Your task to perform on an android device: What's the news in Brazil? Image 0: 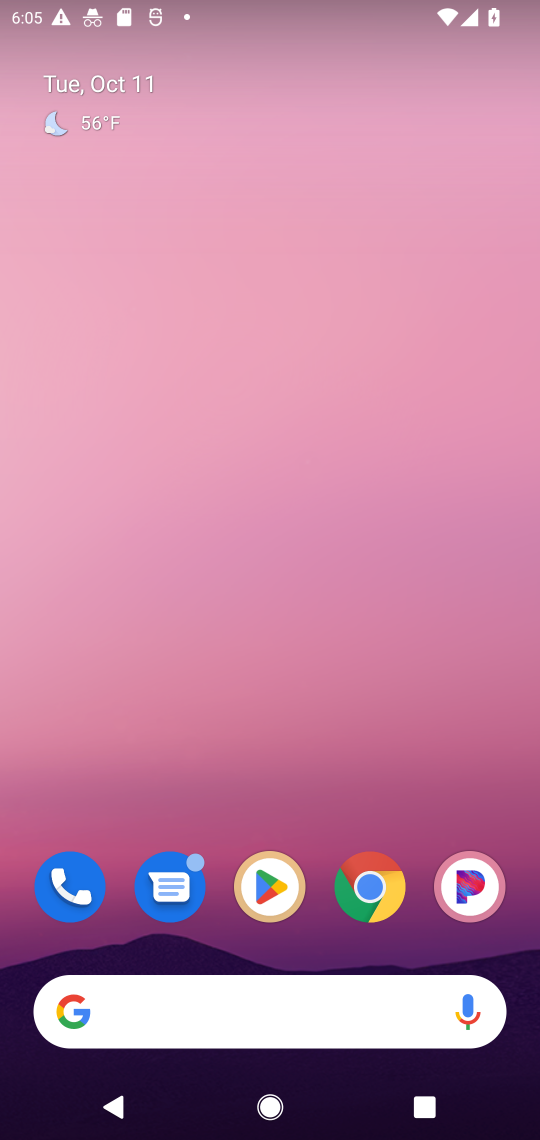
Step 0: click (231, 1015)
Your task to perform on an android device: What's the news in Brazil? Image 1: 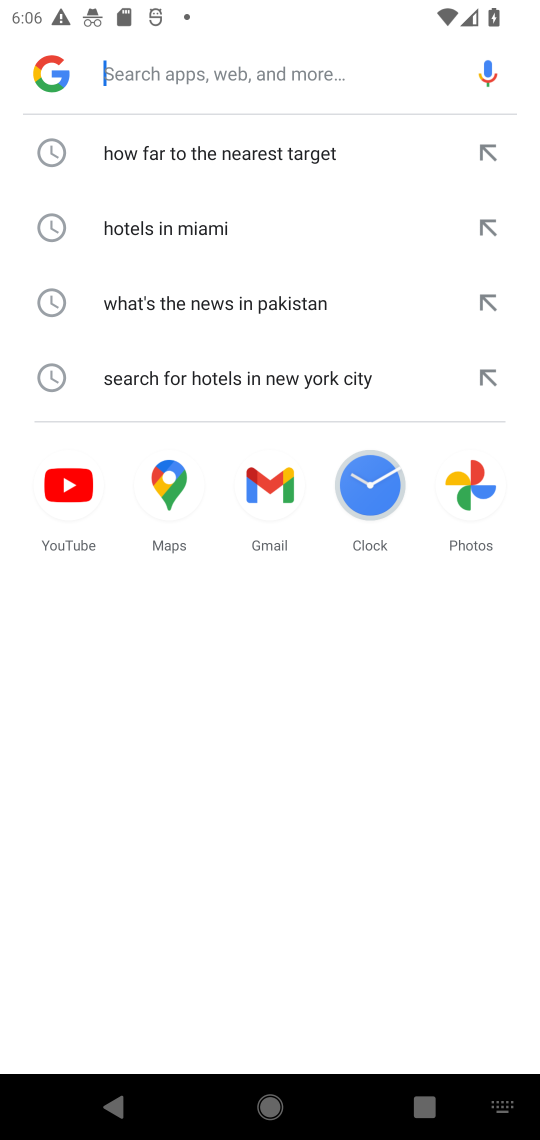
Step 1: type "What's the news in Brazil?"
Your task to perform on an android device: What's the news in Brazil? Image 2: 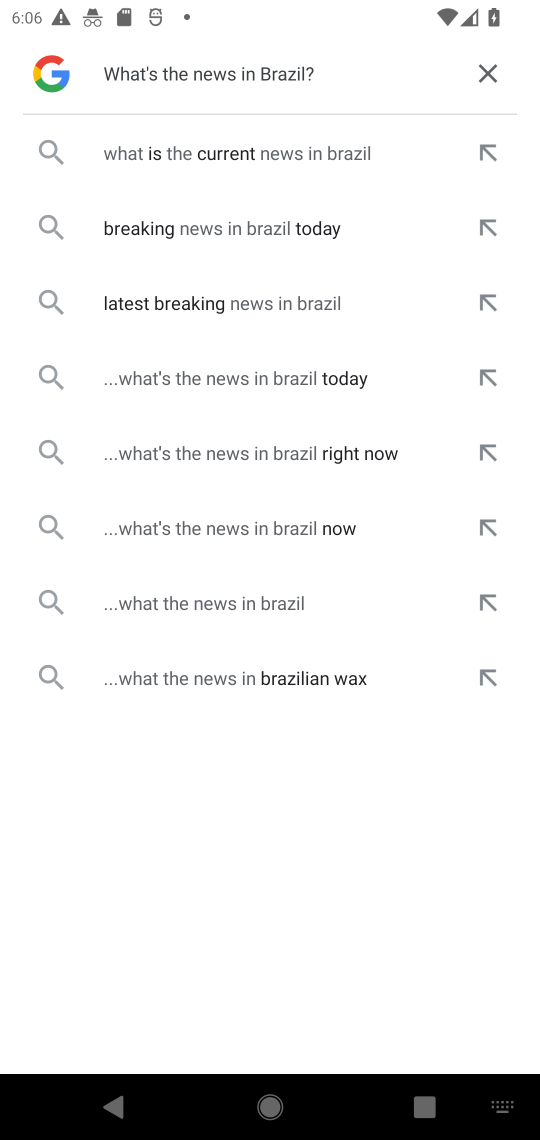
Step 2: click (252, 154)
Your task to perform on an android device: What's the news in Brazil? Image 3: 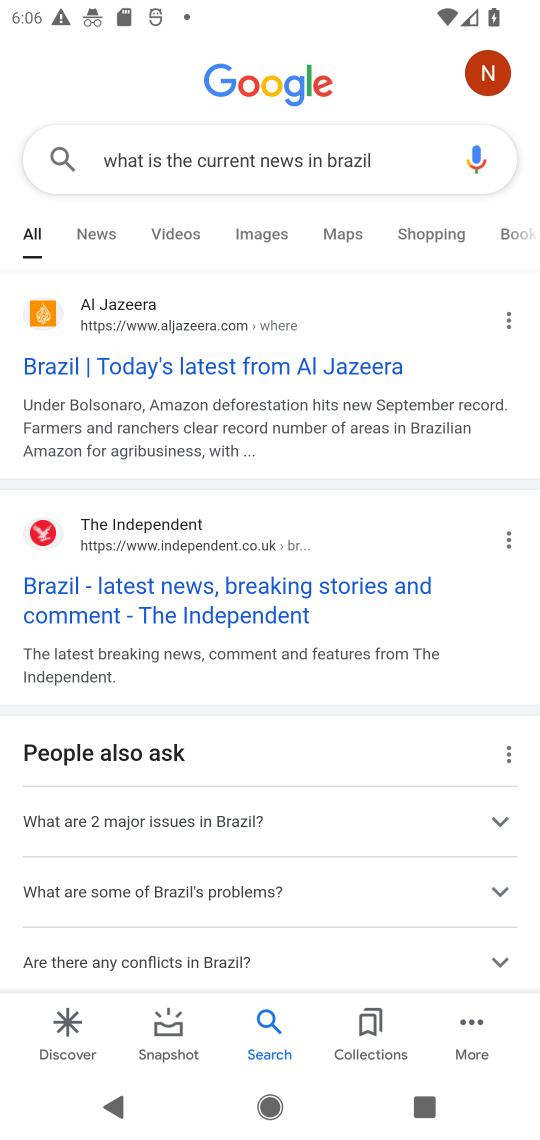
Step 3: click (103, 232)
Your task to perform on an android device: What's the news in Brazil? Image 4: 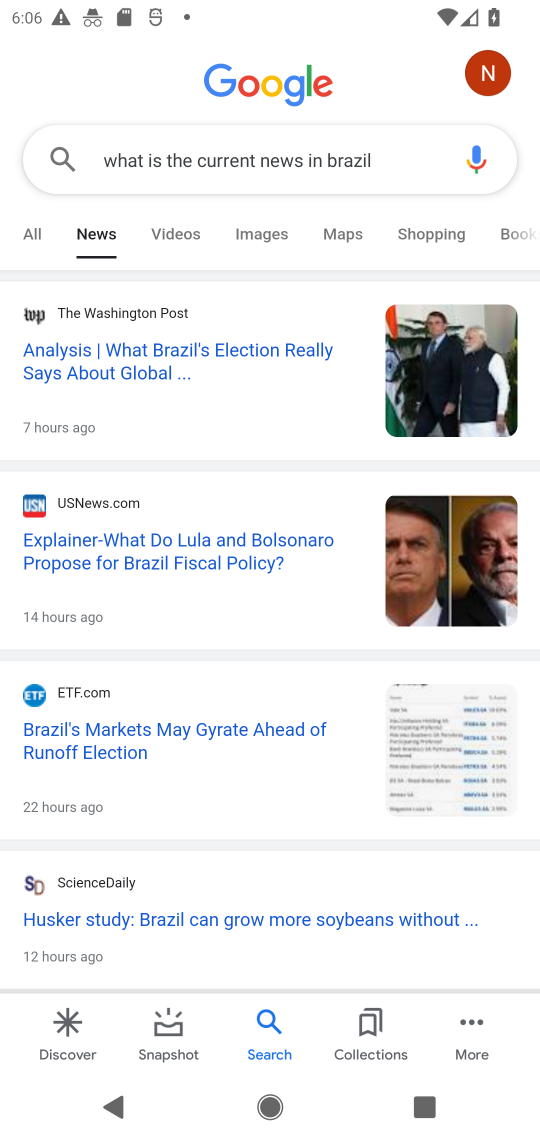
Step 4: click (284, 186)
Your task to perform on an android device: What's the news in Brazil? Image 5: 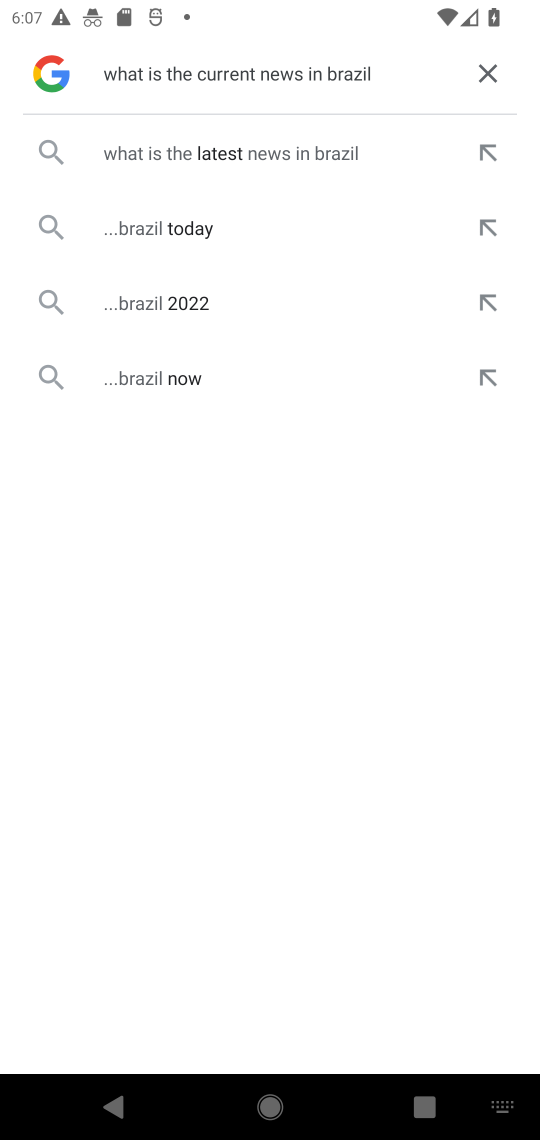
Step 5: click (244, 157)
Your task to perform on an android device: What's the news in Brazil? Image 6: 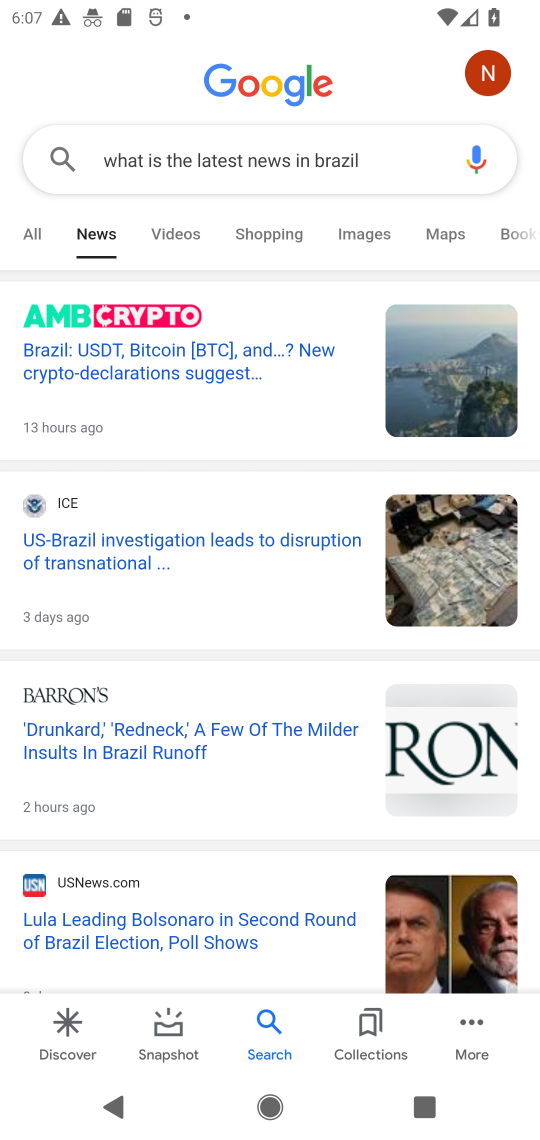
Step 6: task complete